Your task to perform on an android device: add a contact Image 0: 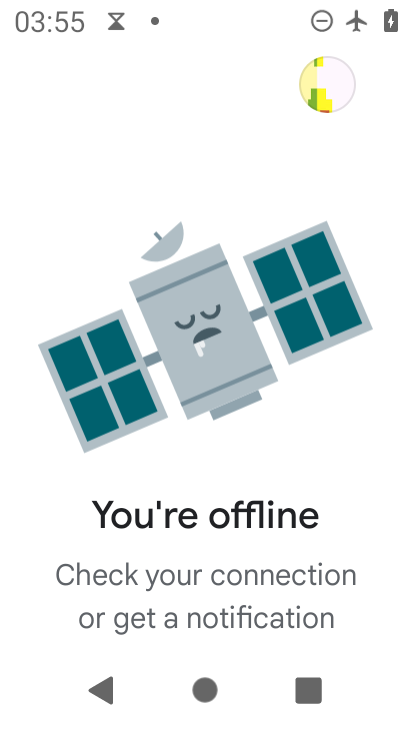
Step 0: press home button
Your task to perform on an android device: add a contact Image 1: 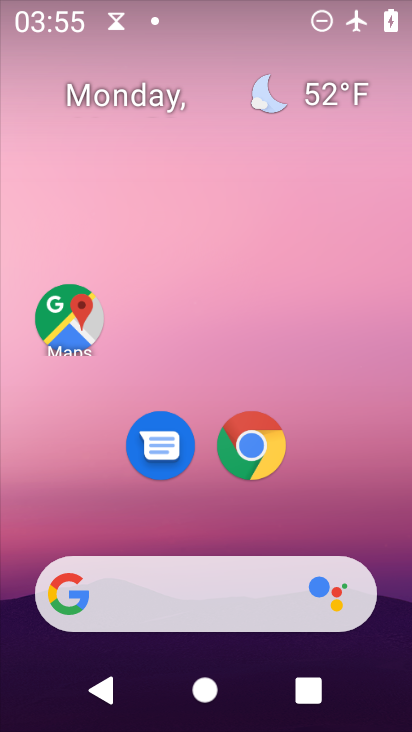
Step 1: drag from (200, 541) to (256, 221)
Your task to perform on an android device: add a contact Image 2: 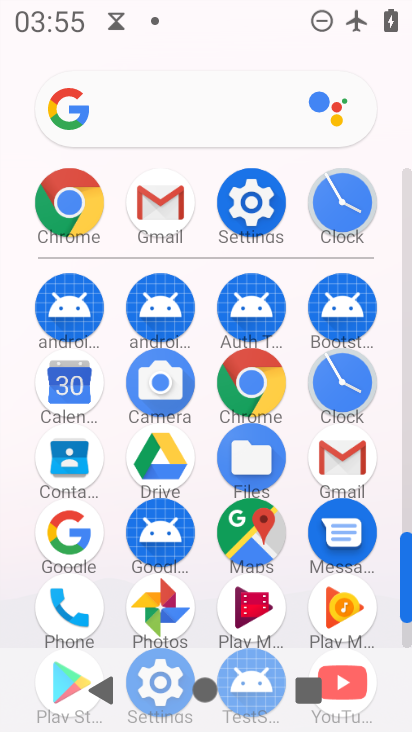
Step 2: drag from (205, 526) to (209, 411)
Your task to perform on an android device: add a contact Image 3: 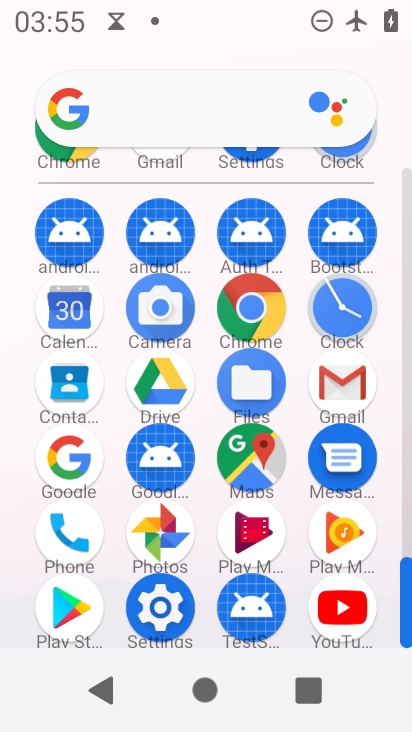
Step 3: click (75, 379)
Your task to perform on an android device: add a contact Image 4: 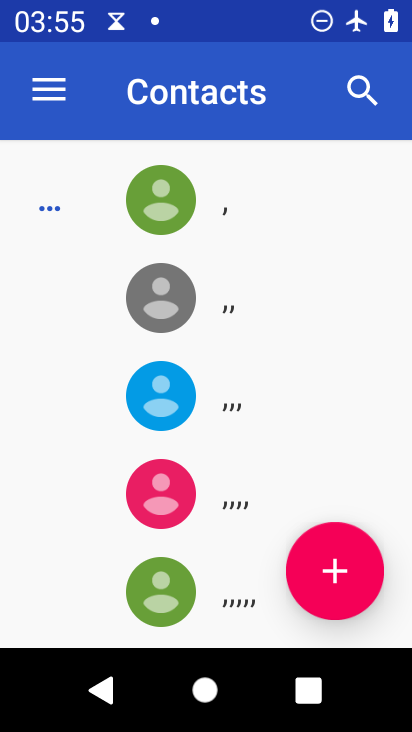
Step 4: click (344, 573)
Your task to perform on an android device: add a contact Image 5: 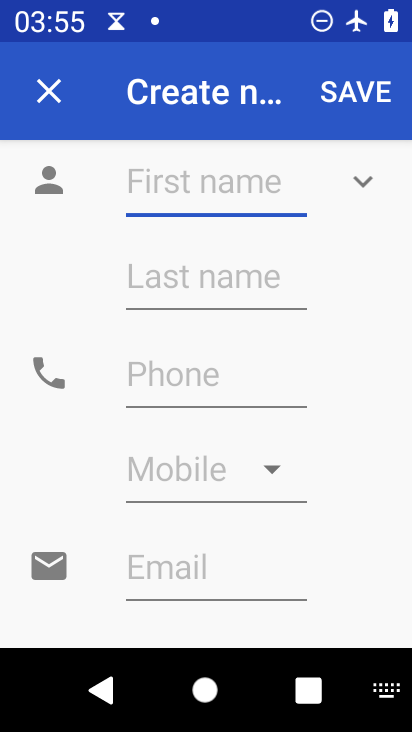
Step 5: type "flous"
Your task to perform on an android device: add a contact Image 6: 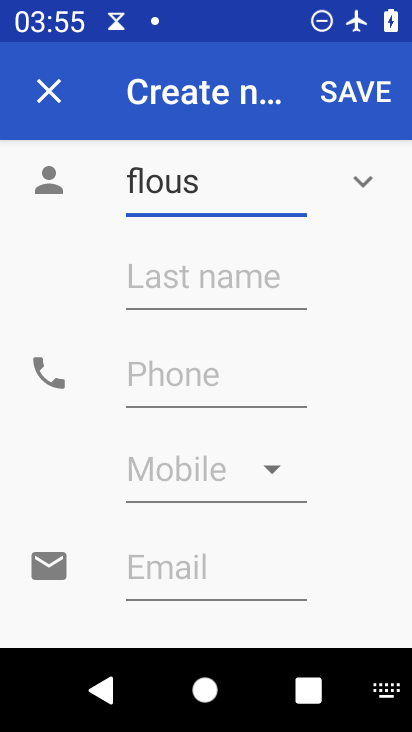
Step 6: click (386, 99)
Your task to perform on an android device: add a contact Image 7: 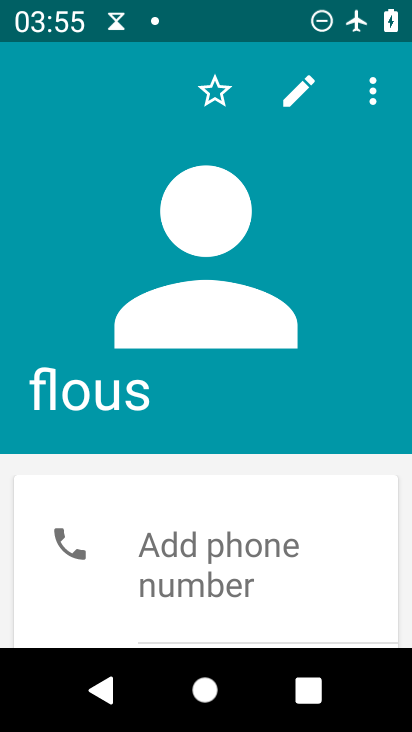
Step 7: task complete